Your task to perform on an android device: all mails in gmail Image 0: 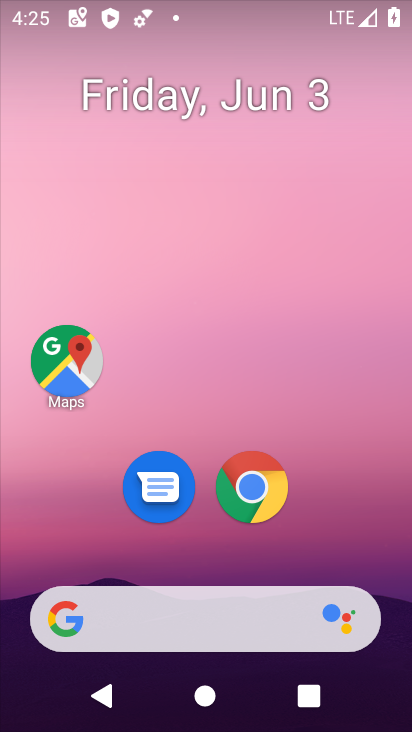
Step 0: drag from (249, 81) to (252, 33)
Your task to perform on an android device: all mails in gmail Image 1: 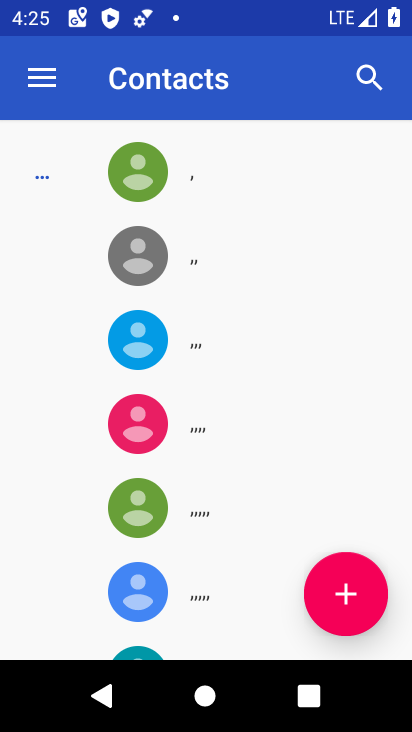
Step 1: drag from (218, 542) to (261, 168)
Your task to perform on an android device: all mails in gmail Image 2: 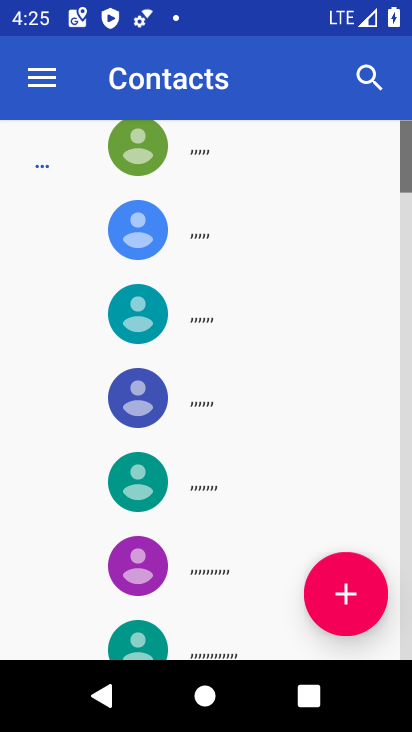
Step 2: drag from (234, 203) to (227, 498)
Your task to perform on an android device: all mails in gmail Image 3: 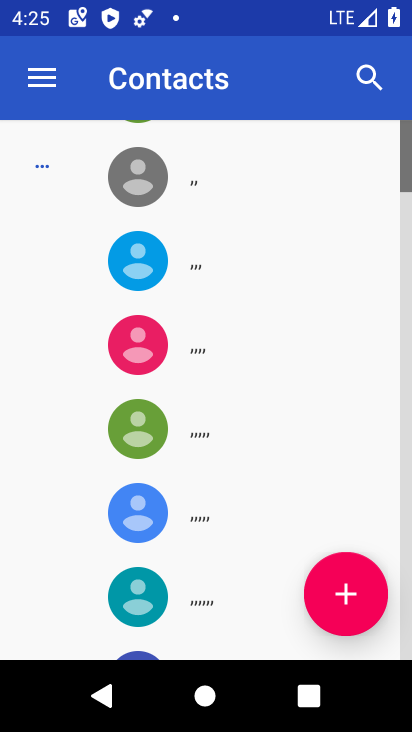
Step 3: press home button
Your task to perform on an android device: all mails in gmail Image 4: 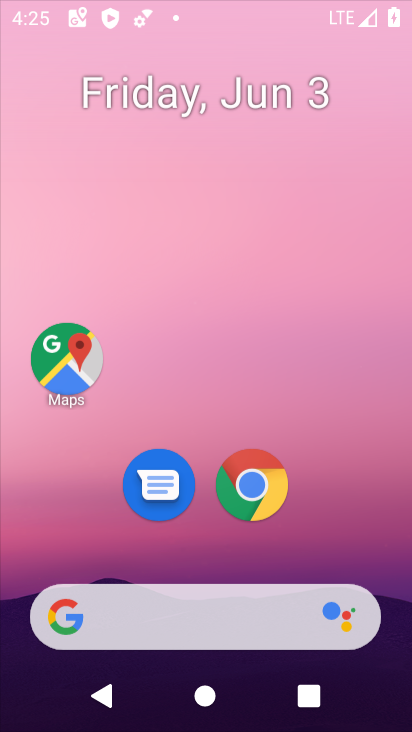
Step 4: drag from (135, 553) to (181, 22)
Your task to perform on an android device: all mails in gmail Image 5: 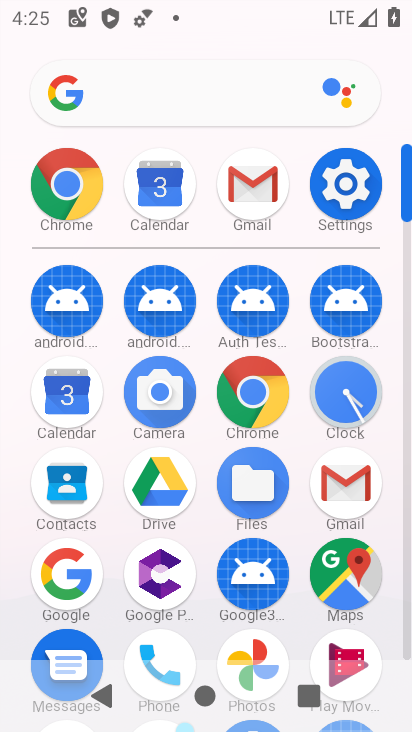
Step 5: click (352, 480)
Your task to perform on an android device: all mails in gmail Image 6: 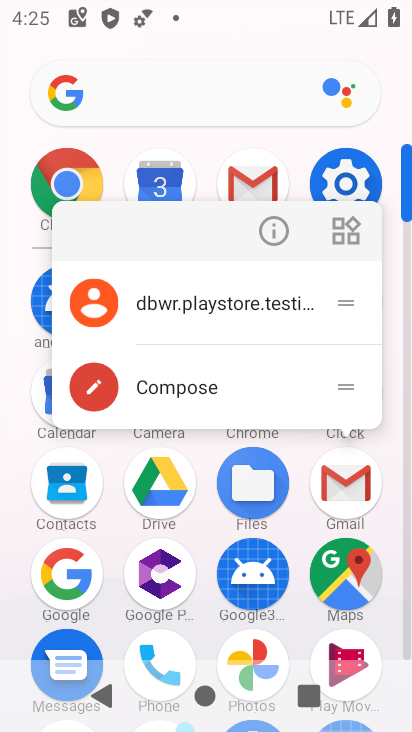
Step 6: click (277, 228)
Your task to perform on an android device: all mails in gmail Image 7: 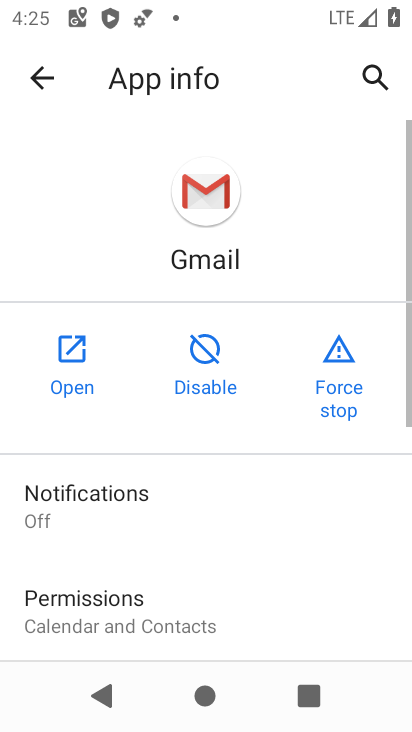
Step 7: click (83, 358)
Your task to perform on an android device: all mails in gmail Image 8: 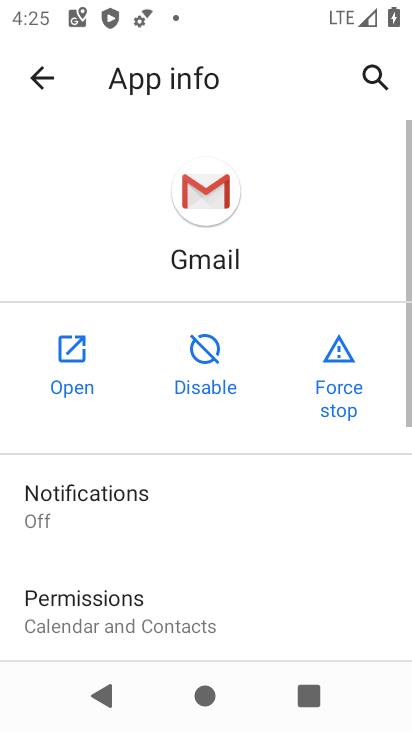
Step 8: click (83, 358)
Your task to perform on an android device: all mails in gmail Image 9: 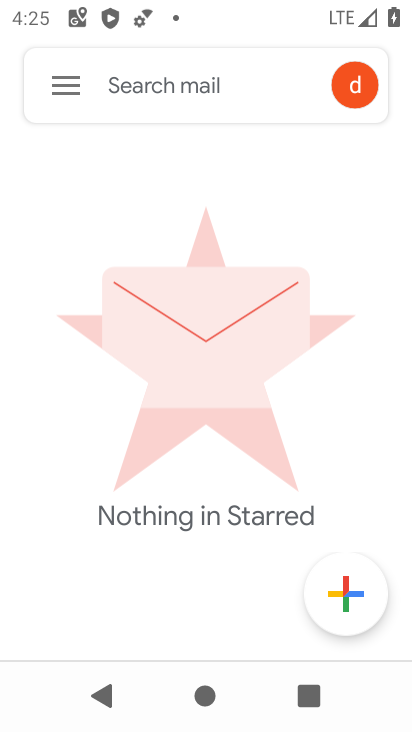
Step 9: click (63, 80)
Your task to perform on an android device: all mails in gmail Image 10: 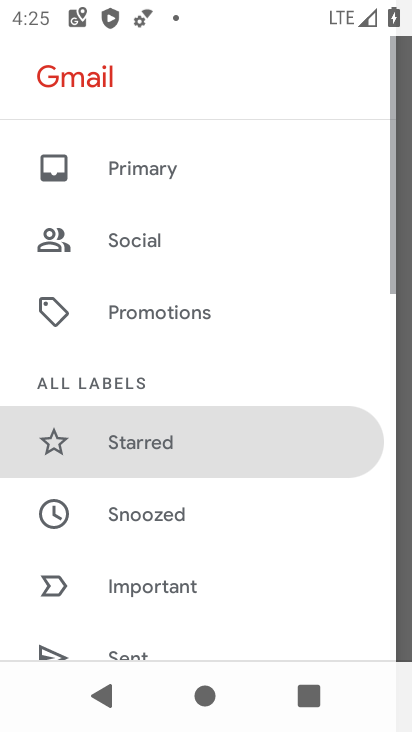
Step 10: drag from (218, 543) to (266, 17)
Your task to perform on an android device: all mails in gmail Image 11: 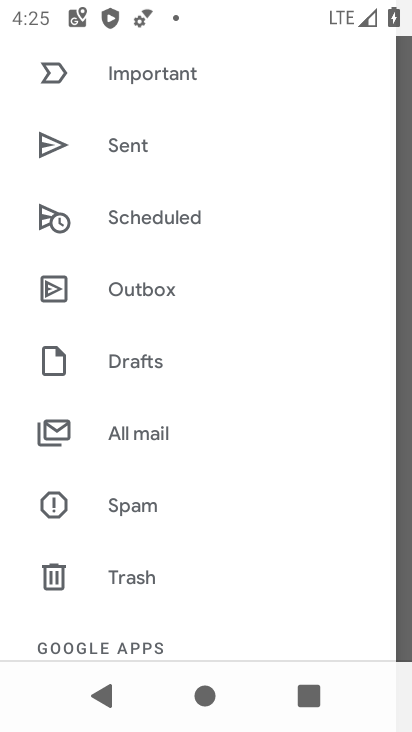
Step 11: drag from (194, 538) to (209, 131)
Your task to perform on an android device: all mails in gmail Image 12: 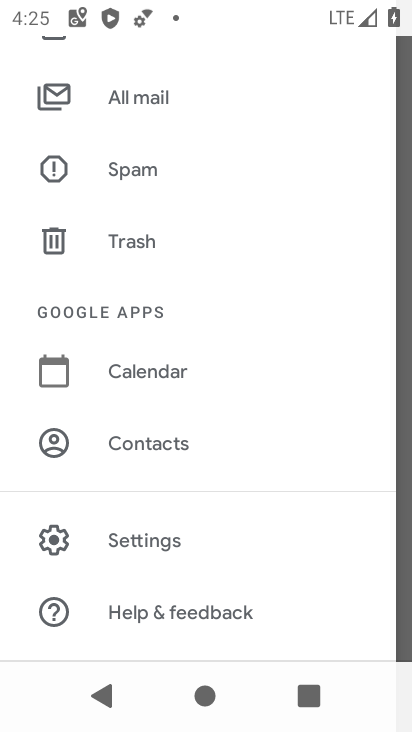
Step 12: click (150, 87)
Your task to perform on an android device: all mails in gmail Image 13: 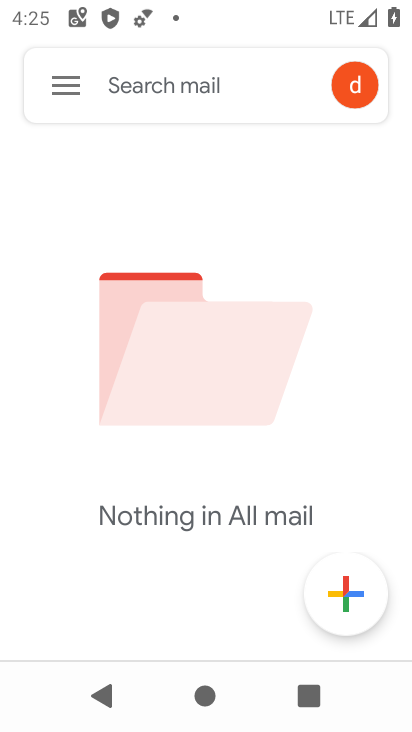
Step 13: task complete